Your task to perform on an android device: toggle wifi Image 0: 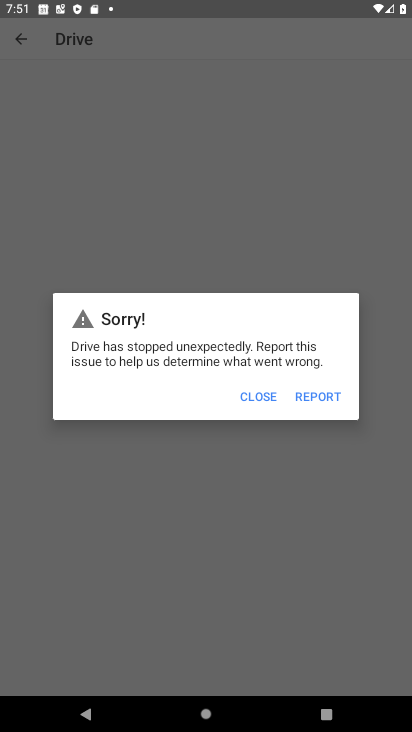
Step 0: press home button
Your task to perform on an android device: toggle wifi Image 1: 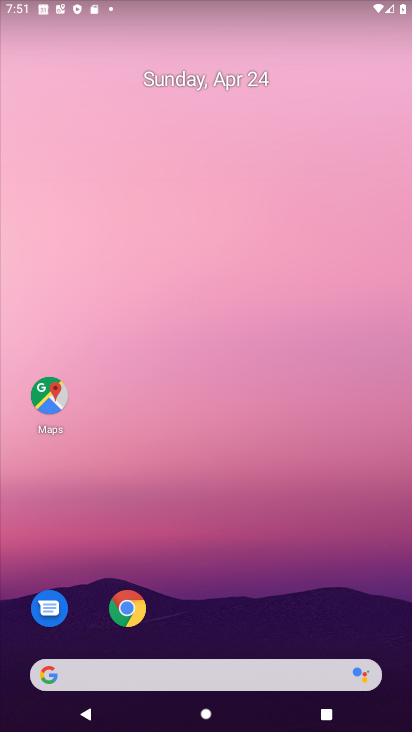
Step 1: drag from (259, 634) to (274, 139)
Your task to perform on an android device: toggle wifi Image 2: 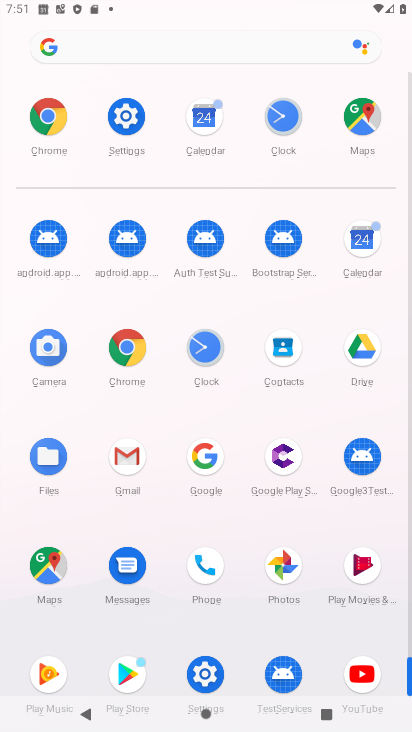
Step 2: click (118, 111)
Your task to perform on an android device: toggle wifi Image 3: 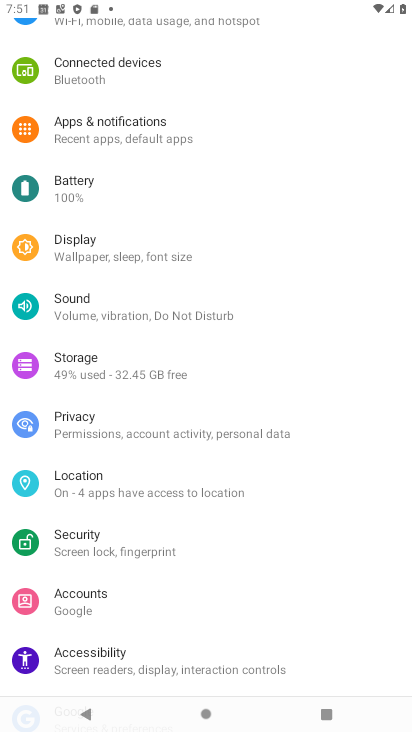
Step 3: drag from (189, 112) to (212, 596)
Your task to perform on an android device: toggle wifi Image 4: 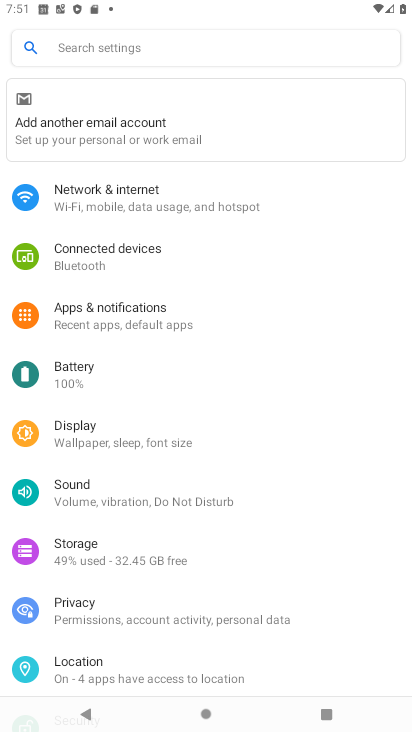
Step 4: click (155, 187)
Your task to perform on an android device: toggle wifi Image 5: 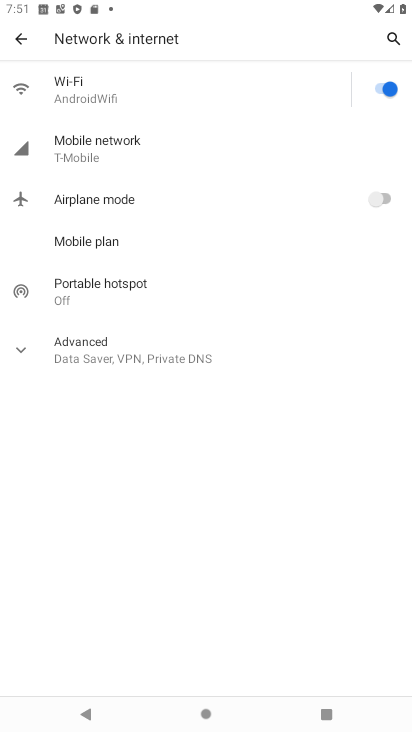
Step 5: click (378, 84)
Your task to perform on an android device: toggle wifi Image 6: 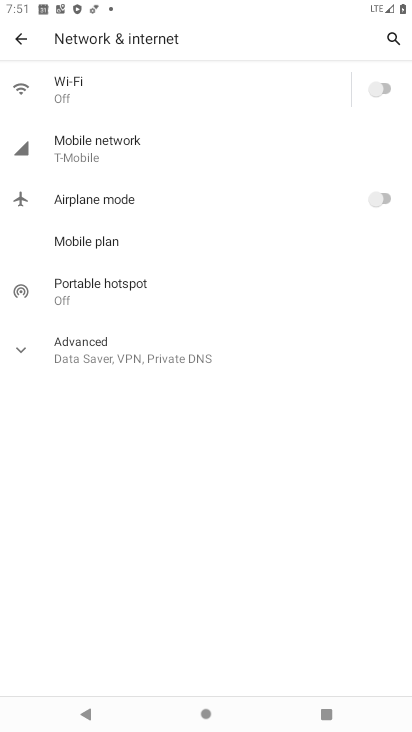
Step 6: task complete